Your task to perform on an android device: Go to Maps Image 0: 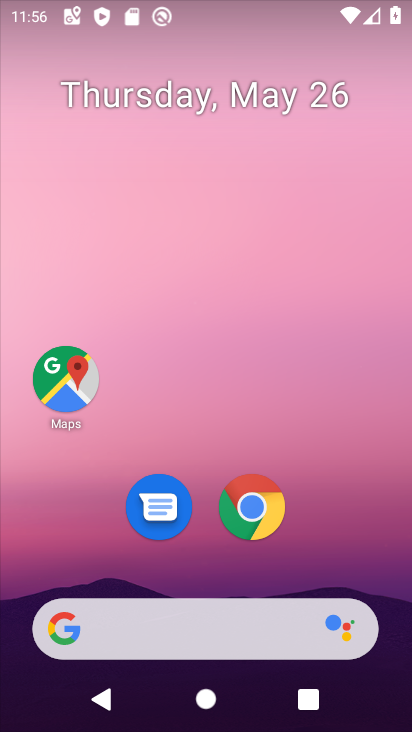
Step 0: click (49, 389)
Your task to perform on an android device: Go to Maps Image 1: 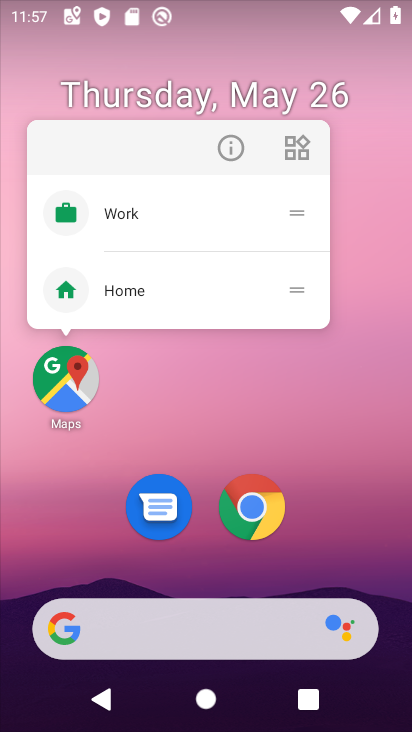
Step 1: click (51, 386)
Your task to perform on an android device: Go to Maps Image 2: 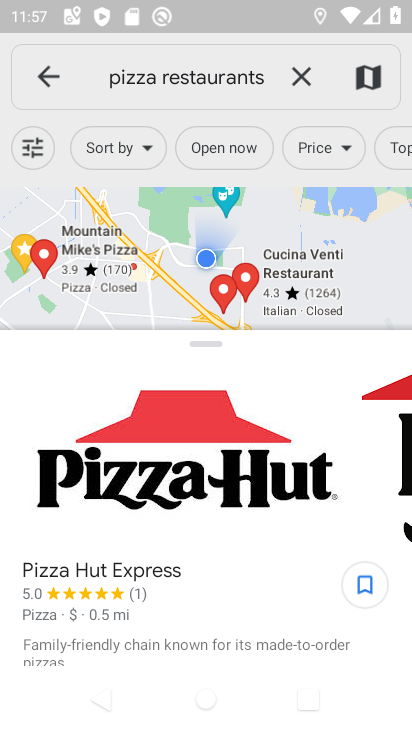
Step 2: task complete